Your task to perform on an android device: Check the new Jordans on Nike. Image 0: 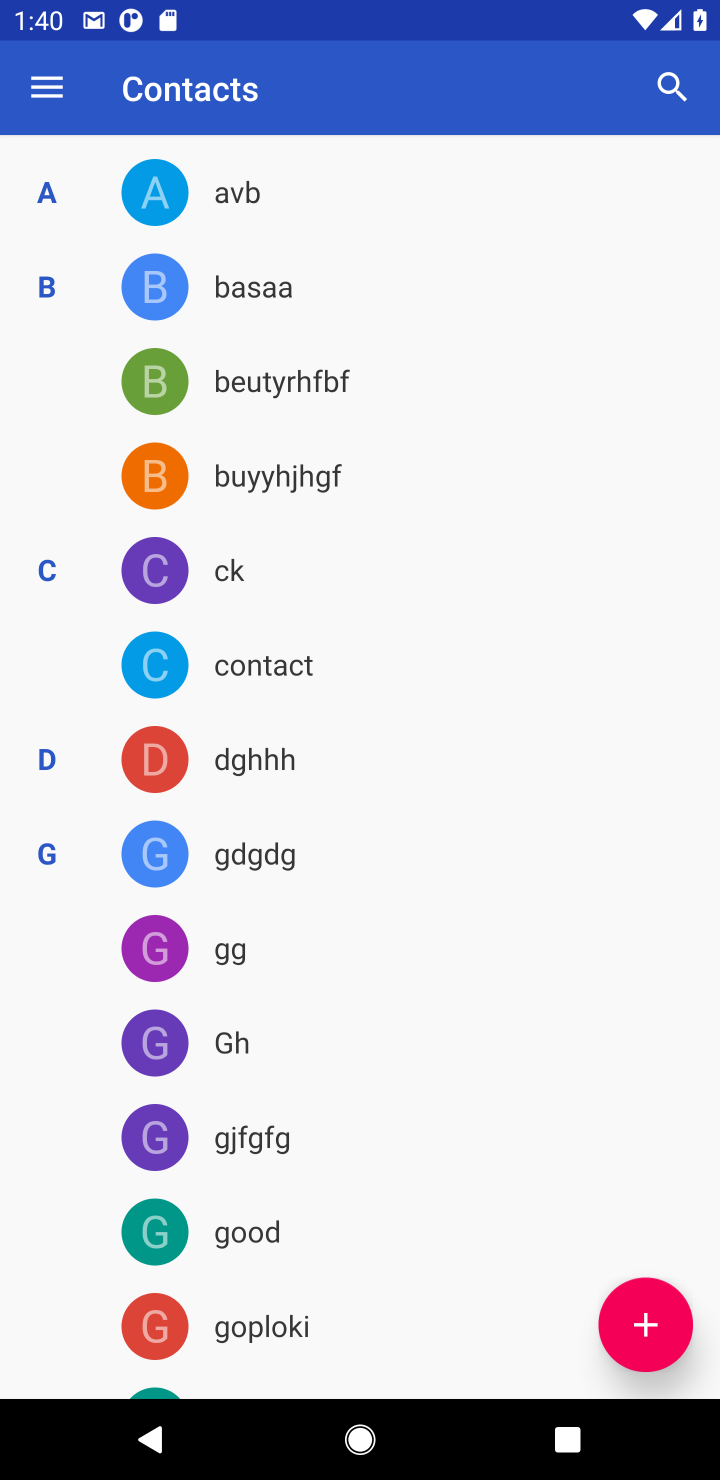
Step 0: task complete